Your task to perform on an android device: Open Google Maps and go to "Timeline" Image 0: 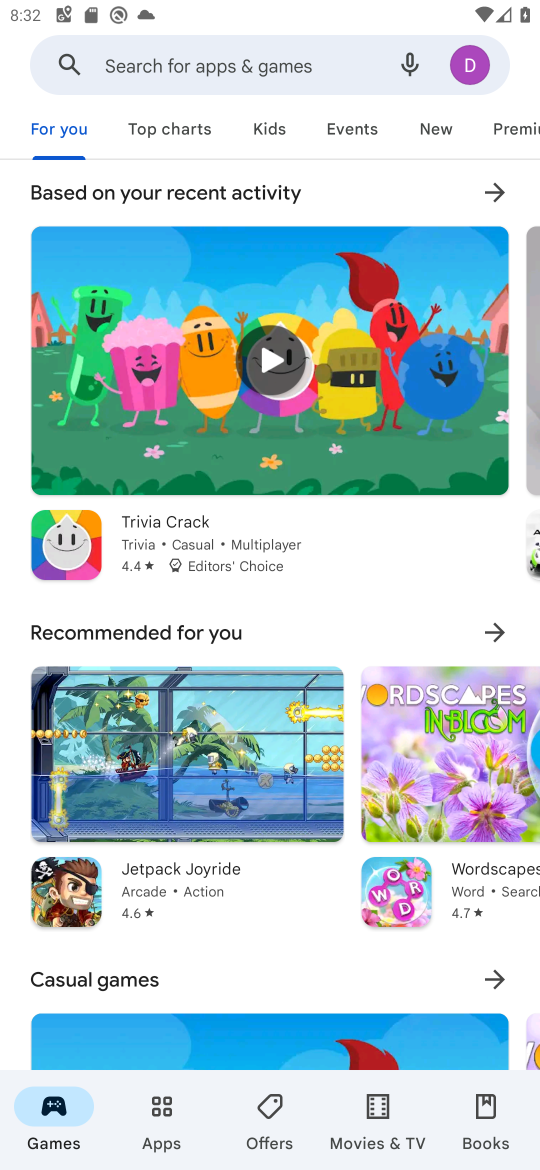
Step 0: press home button
Your task to perform on an android device: Open Google Maps and go to "Timeline" Image 1: 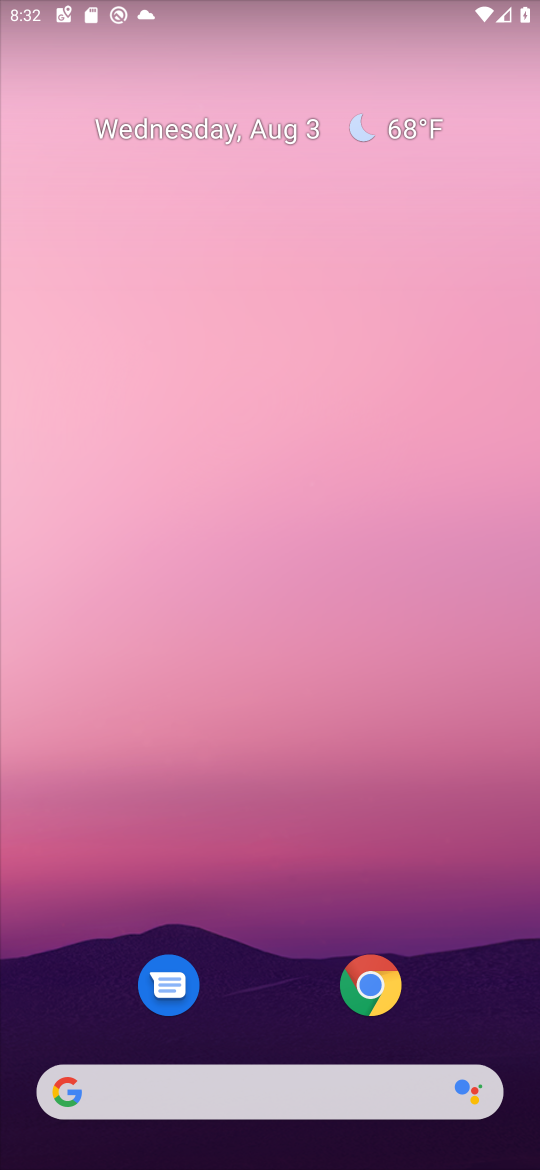
Step 1: drag from (268, 973) to (268, 267)
Your task to perform on an android device: Open Google Maps and go to "Timeline" Image 2: 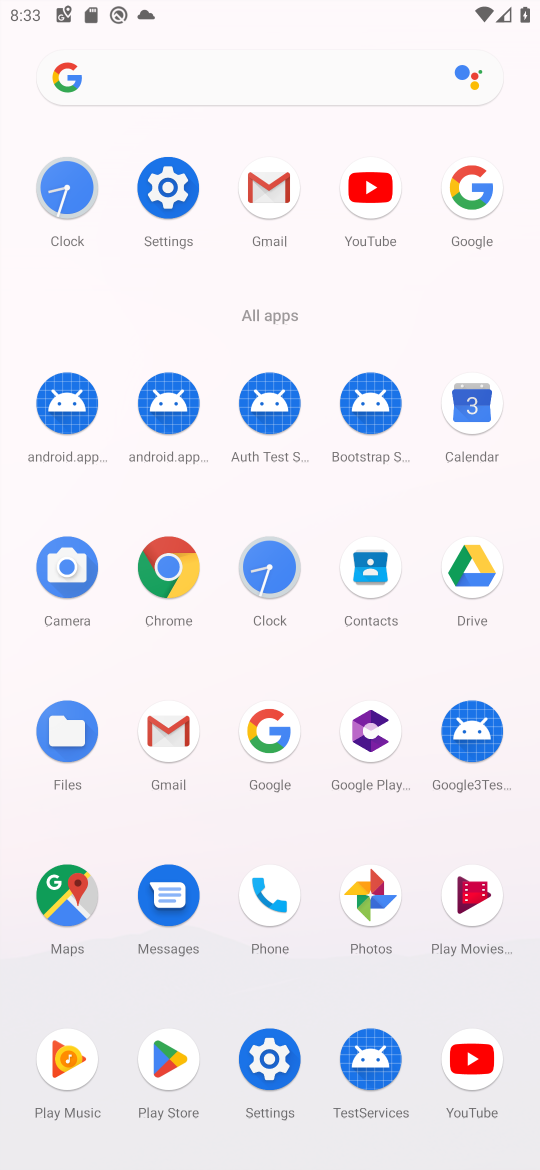
Step 2: click (79, 885)
Your task to perform on an android device: Open Google Maps and go to "Timeline" Image 3: 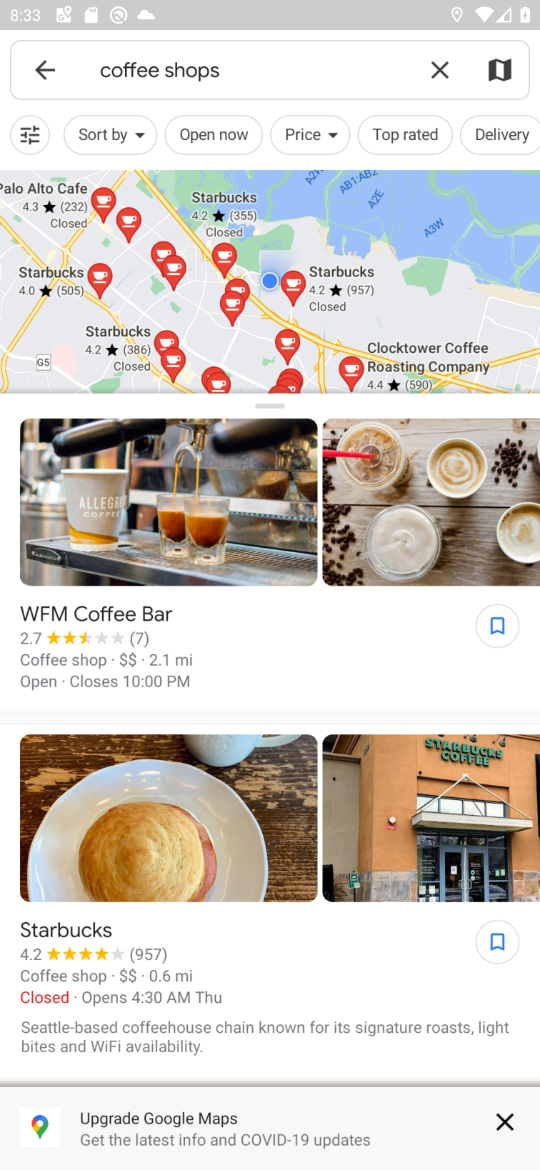
Step 3: click (40, 56)
Your task to perform on an android device: Open Google Maps and go to "Timeline" Image 4: 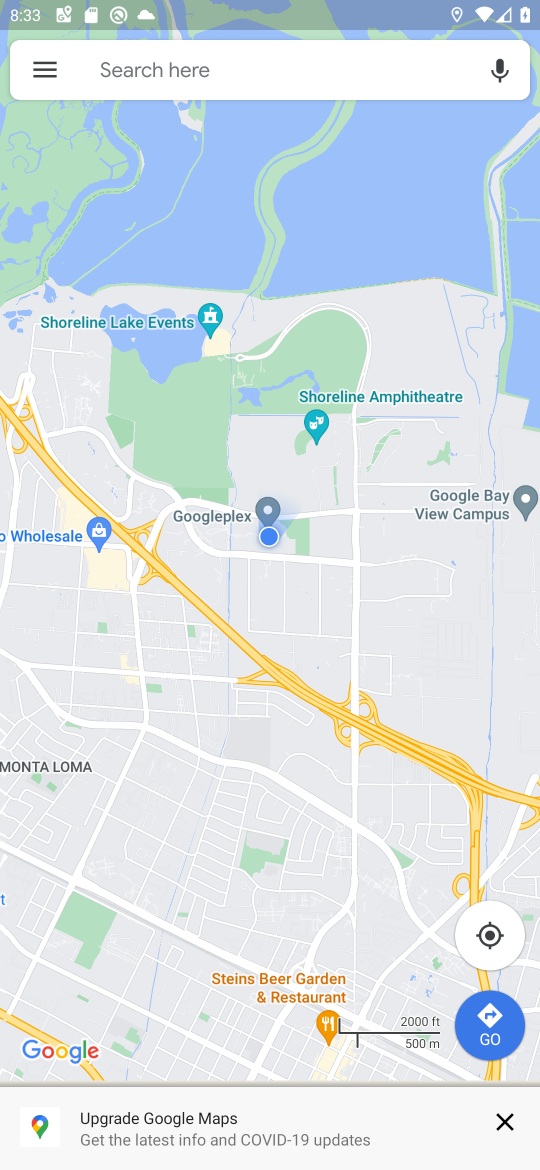
Step 4: click (59, 67)
Your task to perform on an android device: Open Google Maps and go to "Timeline" Image 5: 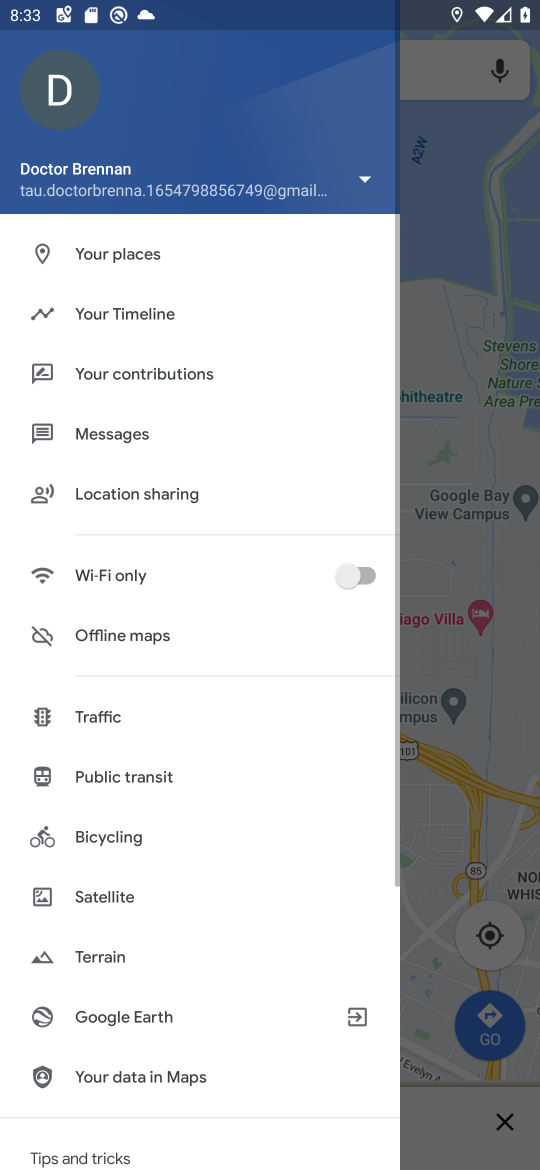
Step 5: click (120, 300)
Your task to perform on an android device: Open Google Maps and go to "Timeline" Image 6: 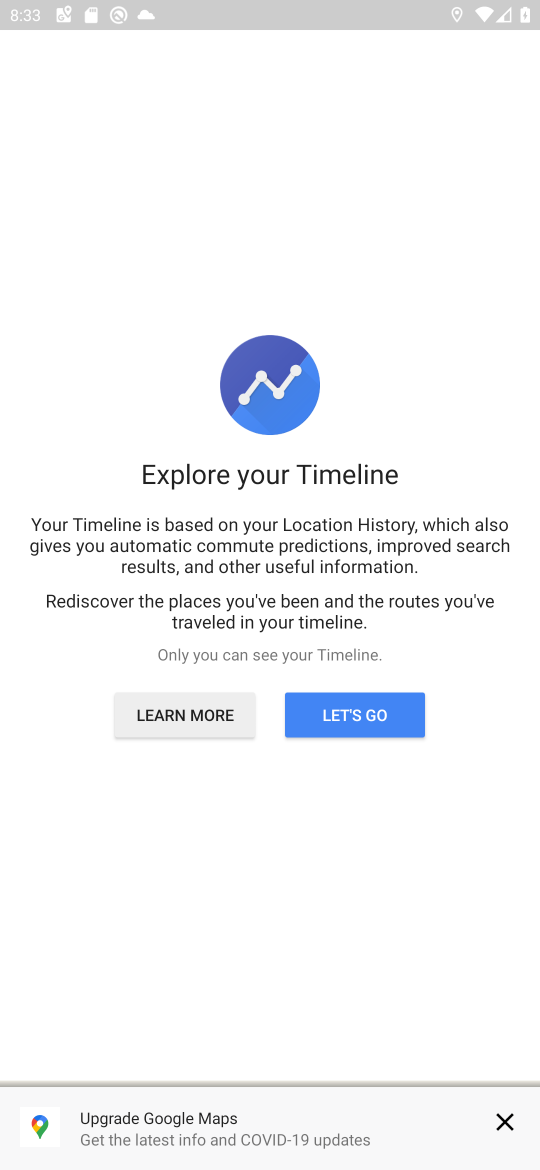
Step 6: click (330, 729)
Your task to perform on an android device: Open Google Maps and go to "Timeline" Image 7: 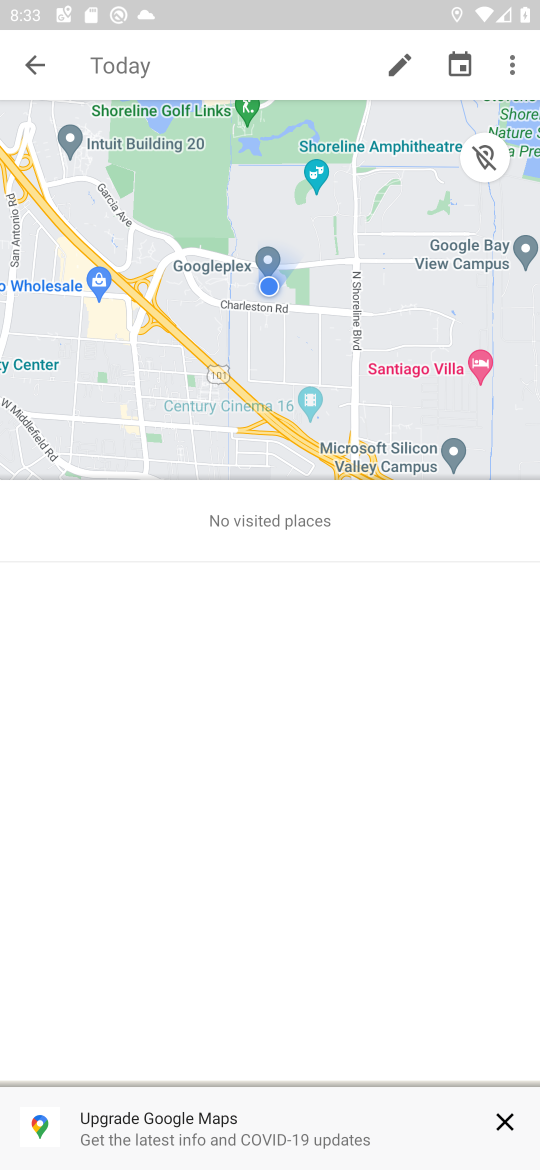
Step 7: click (26, 76)
Your task to perform on an android device: Open Google Maps and go to "Timeline" Image 8: 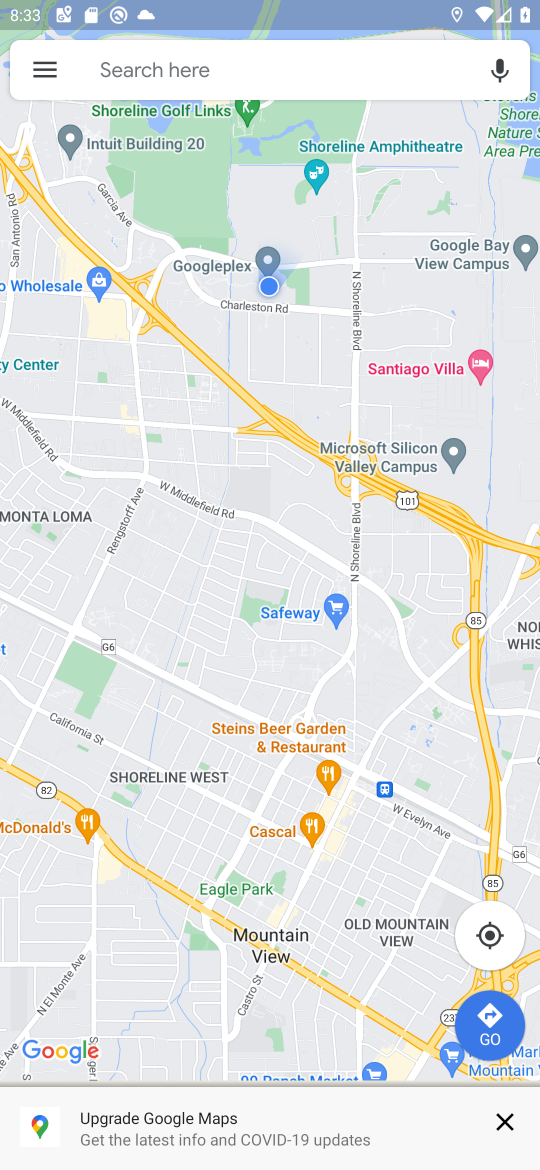
Step 8: click (49, 57)
Your task to perform on an android device: Open Google Maps and go to "Timeline" Image 9: 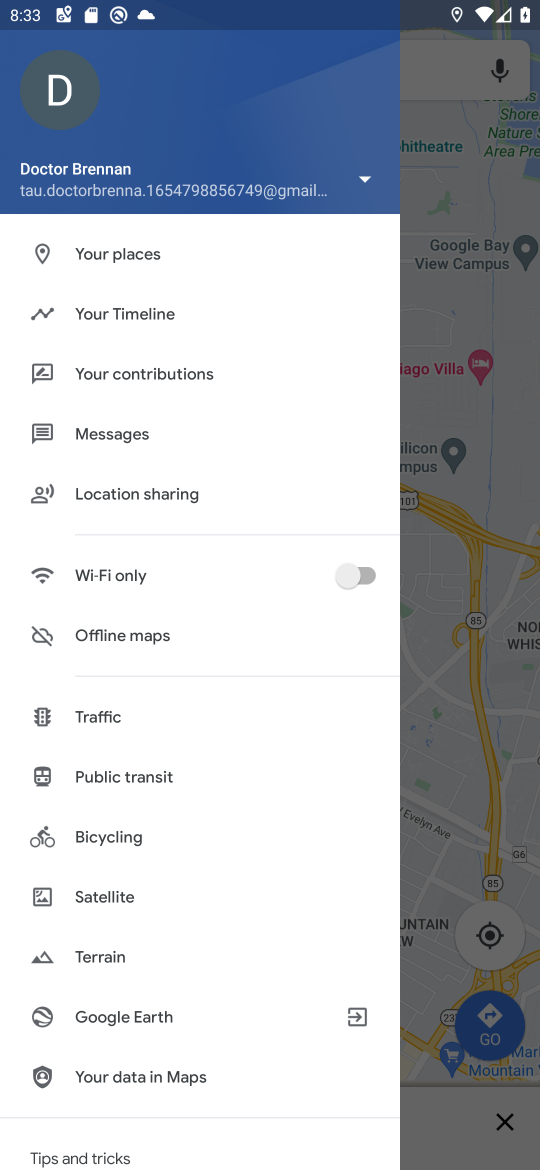
Step 9: click (165, 329)
Your task to perform on an android device: Open Google Maps and go to "Timeline" Image 10: 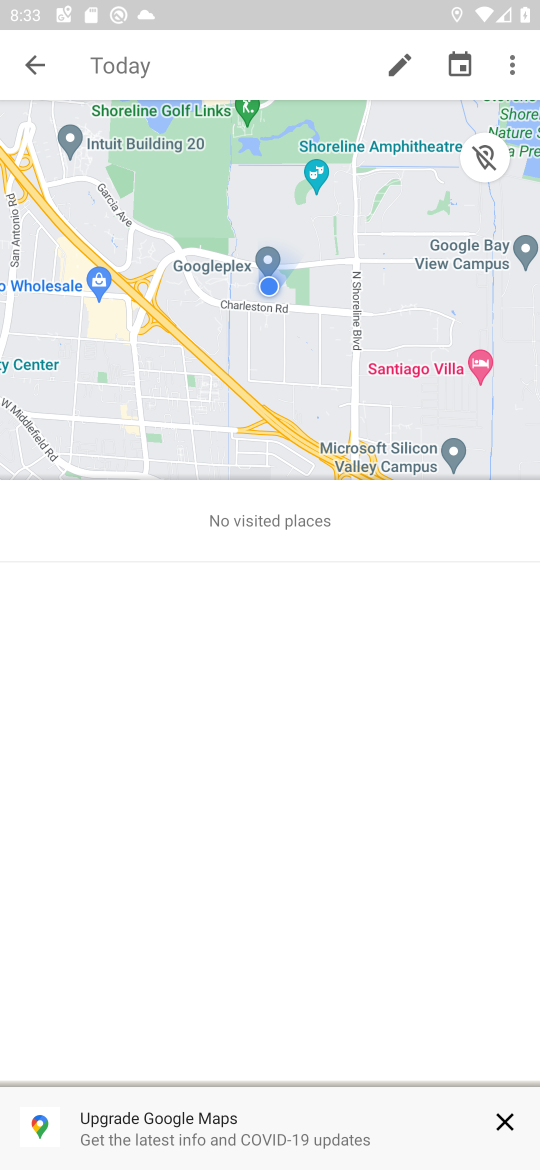
Step 10: task complete